Your task to perform on an android device: What's the weather? Image 0: 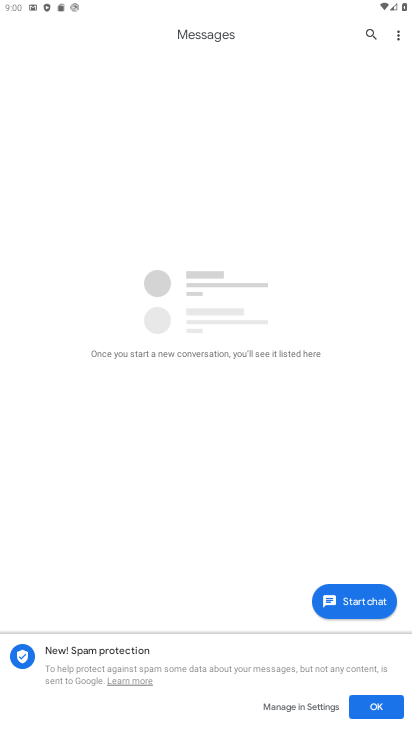
Step 0: press home button
Your task to perform on an android device: What's the weather? Image 1: 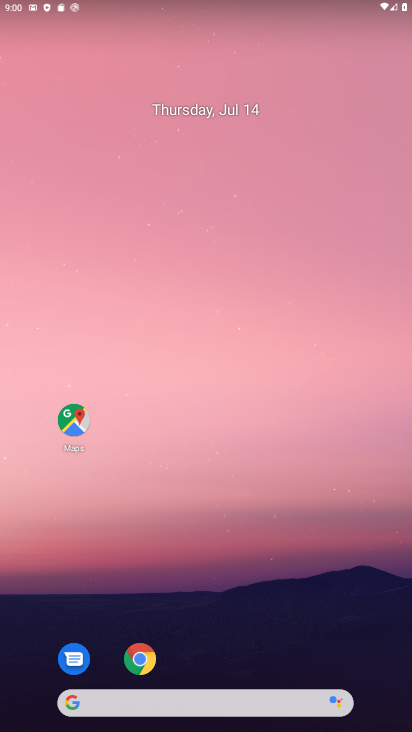
Step 1: click (66, 705)
Your task to perform on an android device: What's the weather? Image 2: 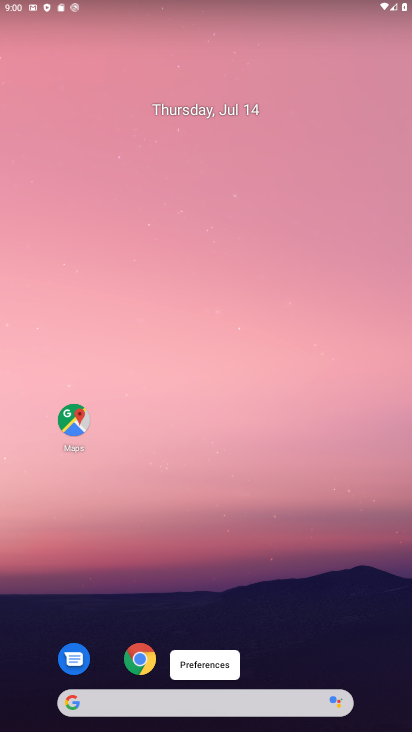
Step 2: click (69, 697)
Your task to perform on an android device: What's the weather? Image 3: 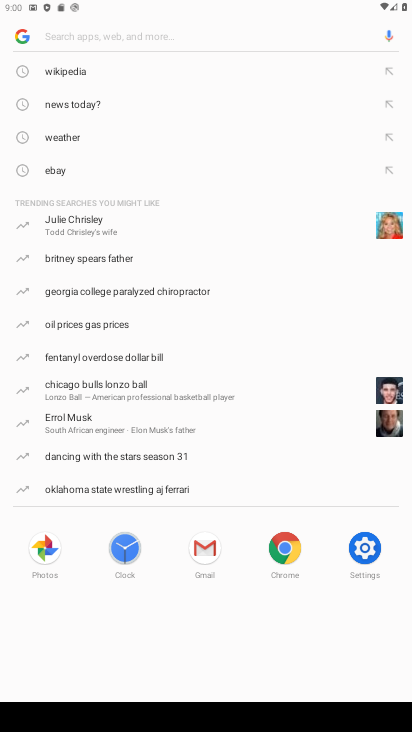
Step 3: click (55, 137)
Your task to perform on an android device: What's the weather? Image 4: 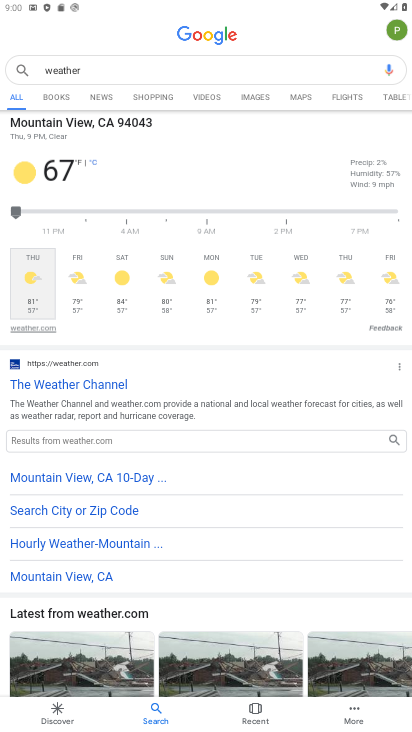
Step 4: task complete